Your task to perform on an android device: turn on improve location accuracy Image 0: 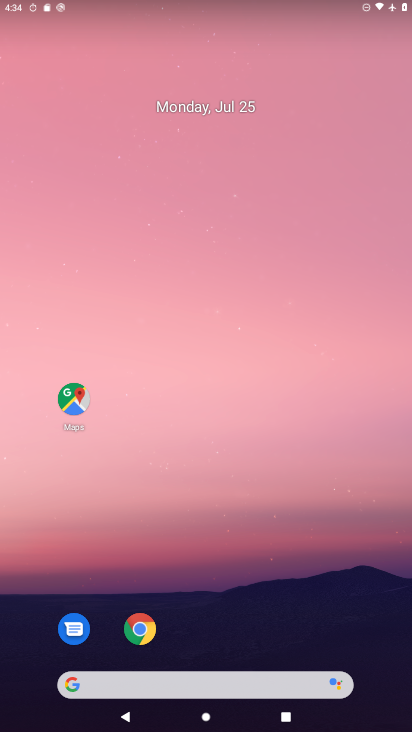
Step 0: drag from (177, 663) to (236, 1)
Your task to perform on an android device: turn on improve location accuracy Image 1: 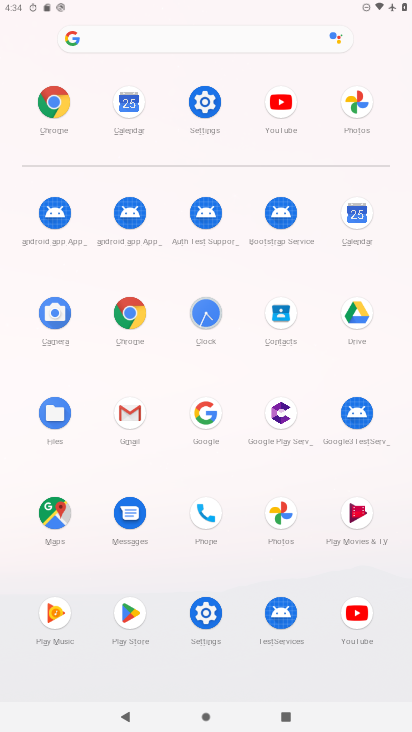
Step 1: click (210, 91)
Your task to perform on an android device: turn on improve location accuracy Image 2: 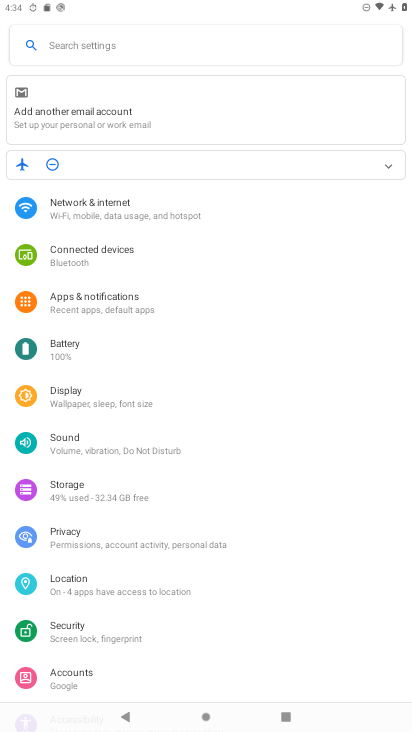
Step 2: click (45, 582)
Your task to perform on an android device: turn on improve location accuracy Image 3: 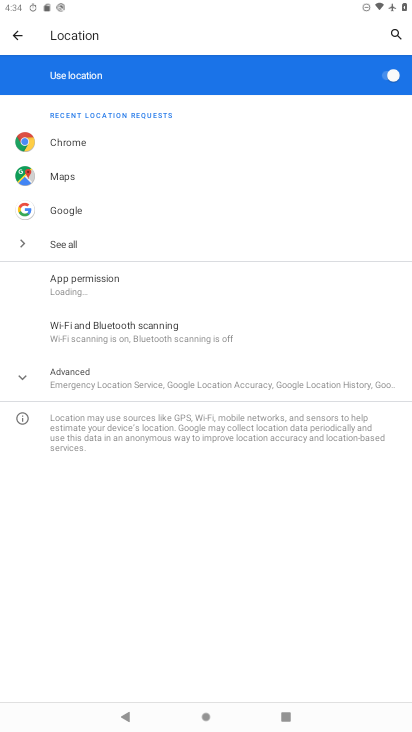
Step 3: click (133, 380)
Your task to perform on an android device: turn on improve location accuracy Image 4: 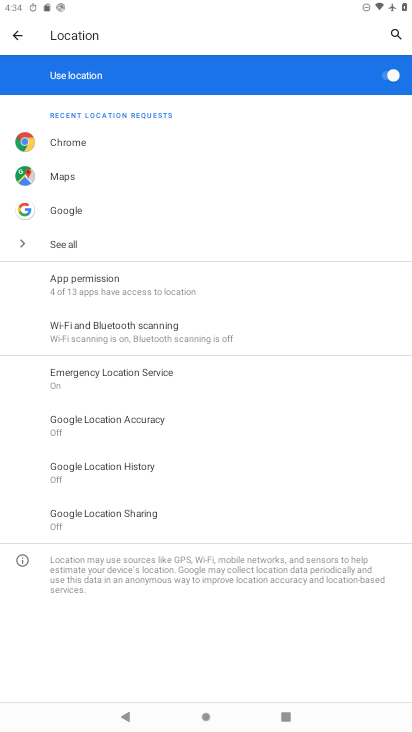
Step 4: click (167, 424)
Your task to perform on an android device: turn on improve location accuracy Image 5: 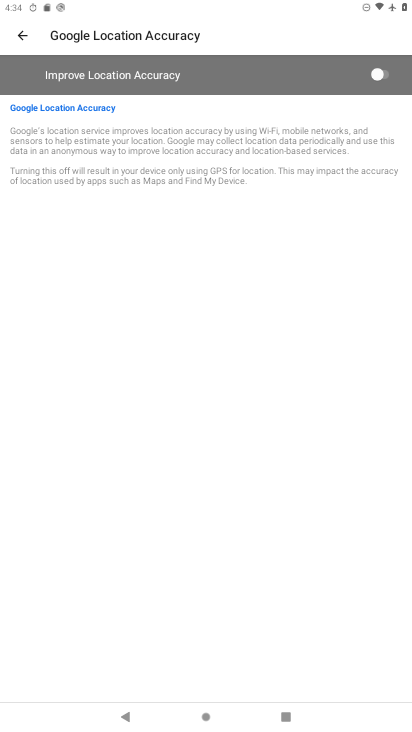
Step 5: click (385, 72)
Your task to perform on an android device: turn on improve location accuracy Image 6: 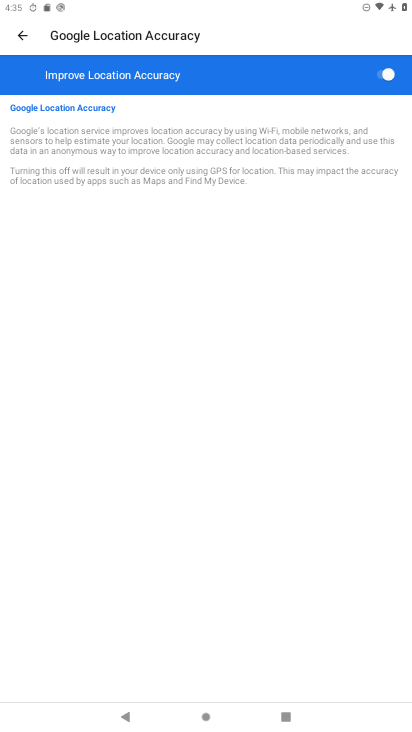
Step 6: task complete